Your task to perform on an android device: What is the recent news? Image 0: 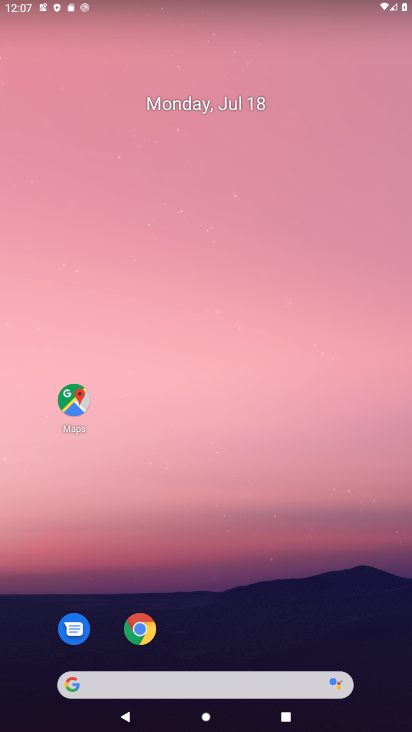
Step 0: press home button
Your task to perform on an android device: What is the recent news? Image 1: 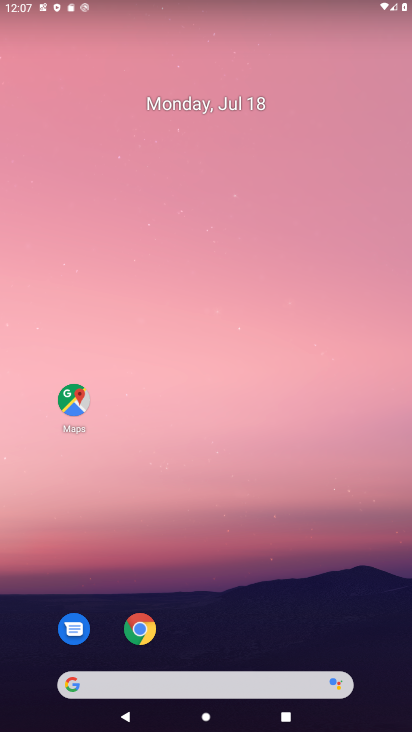
Step 1: click (69, 388)
Your task to perform on an android device: What is the recent news? Image 2: 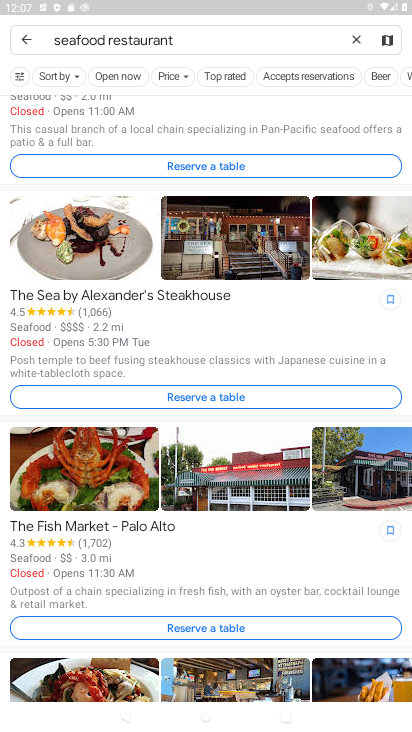
Step 2: click (30, 40)
Your task to perform on an android device: What is the recent news? Image 3: 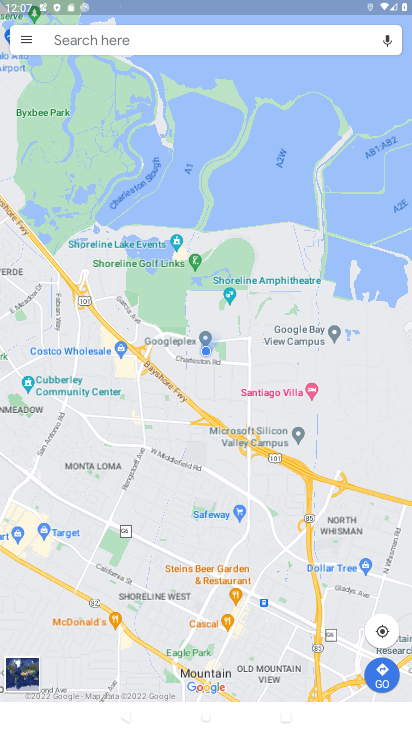
Step 3: task complete